Your task to perform on an android device: stop showing notifications on the lock screen Image 0: 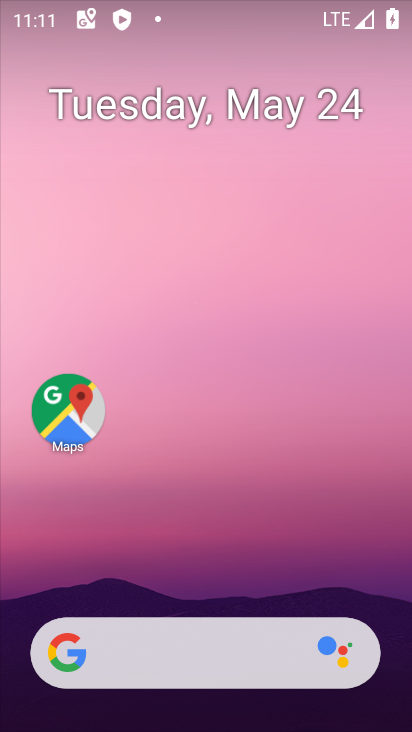
Step 0: drag from (253, 643) to (254, 110)
Your task to perform on an android device: stop showing notifications on the lock screen Image 1: 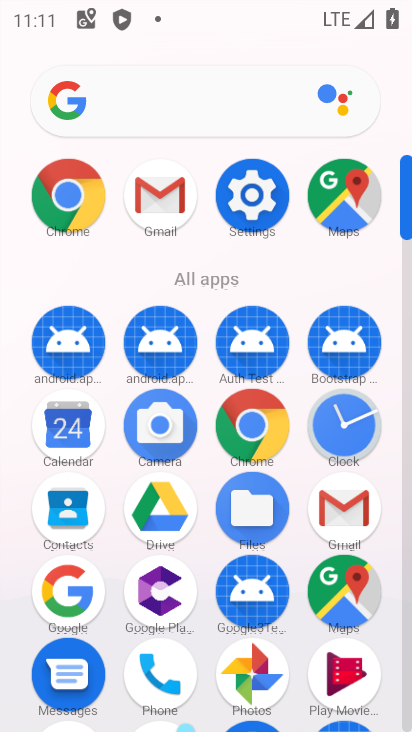
Step 1: click (37, 196)
Your task to perform on an android device: stop showing notifications on the lock screen Image 2: 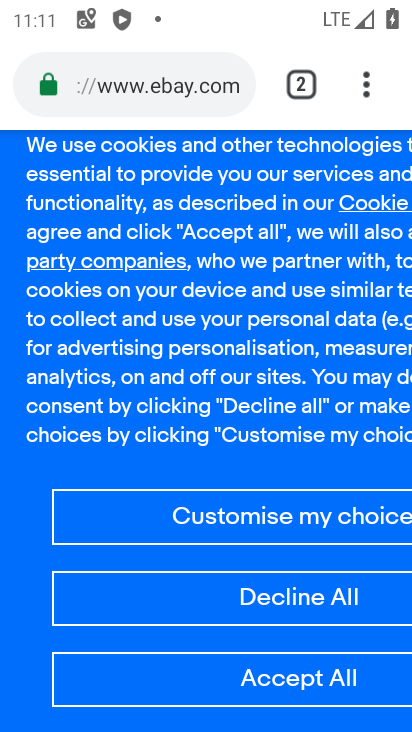
Step 2: task complete